Your task to perform on an android device: Open Google Maps Image 0: 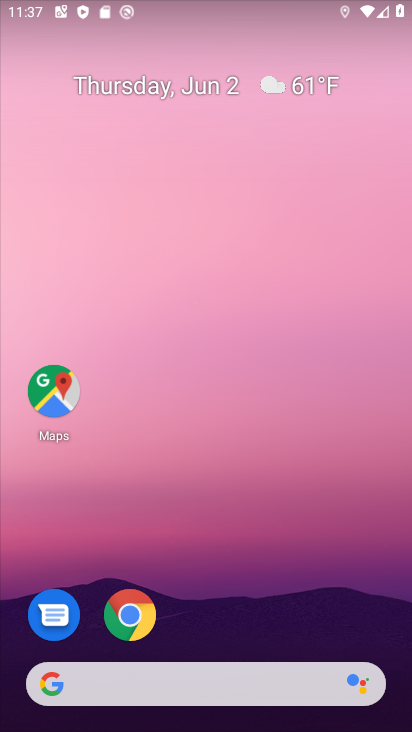
Step 0: press home button
Your task to perform on an android device: Open Google Maps Image 1: 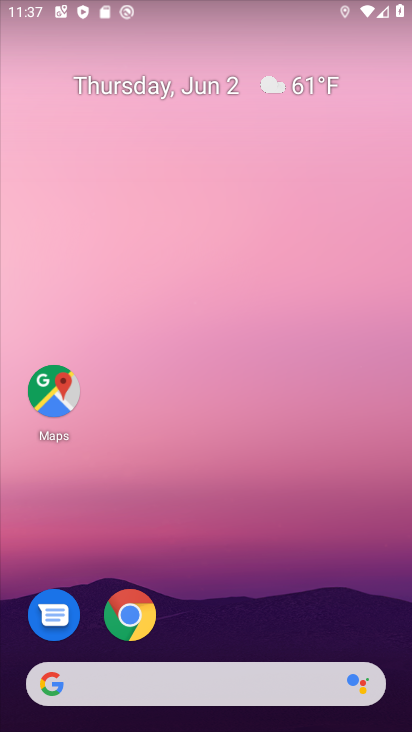
Step 1: click (258, 186)
Your task to perform on an android device: Open Google Maps Image 2: 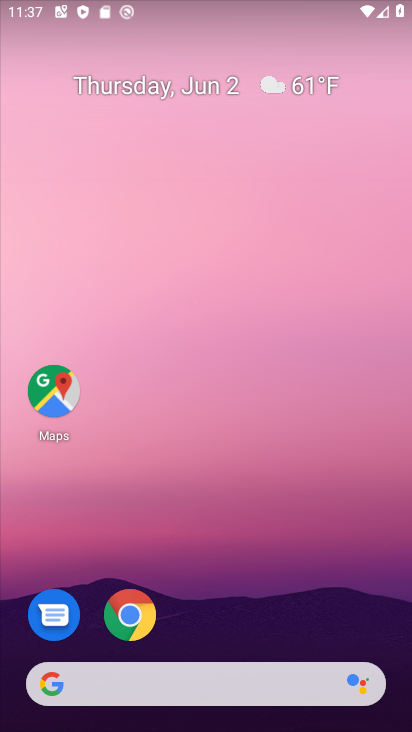
Step 2: click (66, 388)
Your task to perform on an android device: Open Google Maps Image 3: 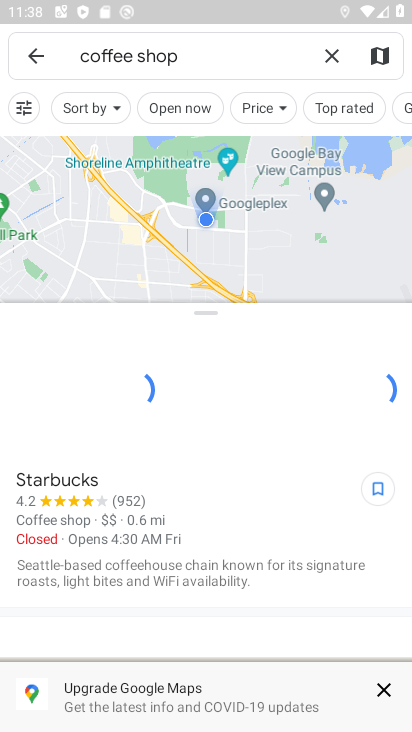
Step 3: task complete